Your task to perform on an android device: Set the phone to "Do not disturb". Image 0: 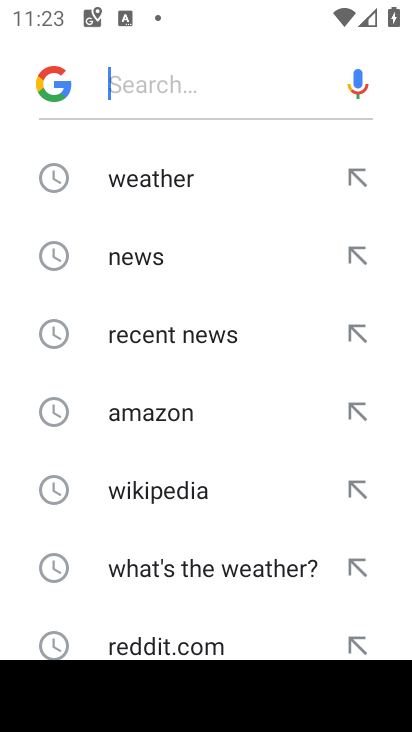
Step 0: press home button
Your task to perform on an android device: Set the phone to "Do not disturb". Image 1: 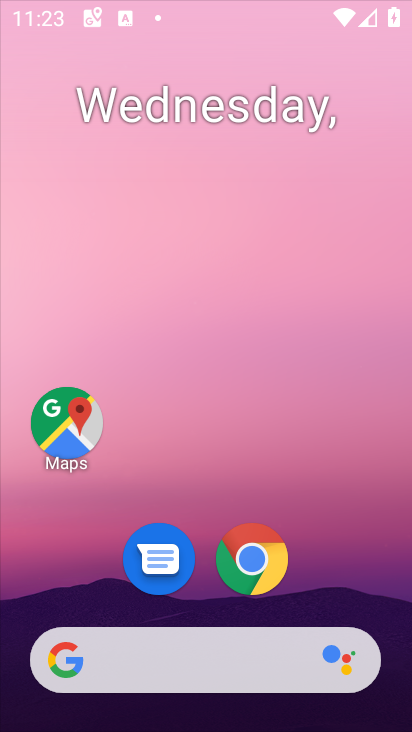
Step 1: drag from (200, 639) to (331, 250)
Your task to perform on an android device: Set the phone to "Do not disturb". Image 2: 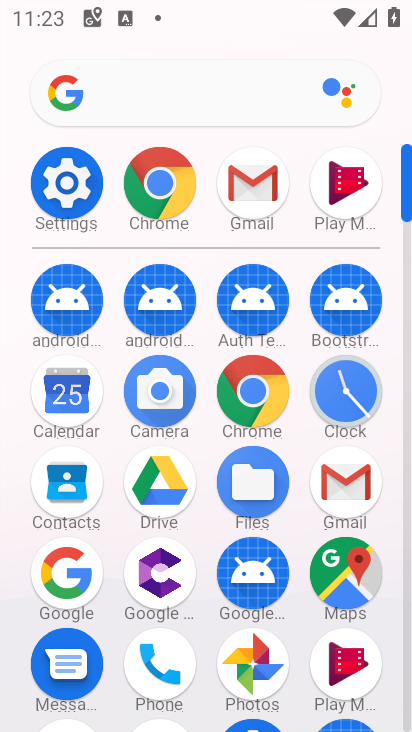
Step 2: drag from (192, 535) to (340, 235)
Your task to perform on an android device: Set the phone to "Do not disturb". Image 3: 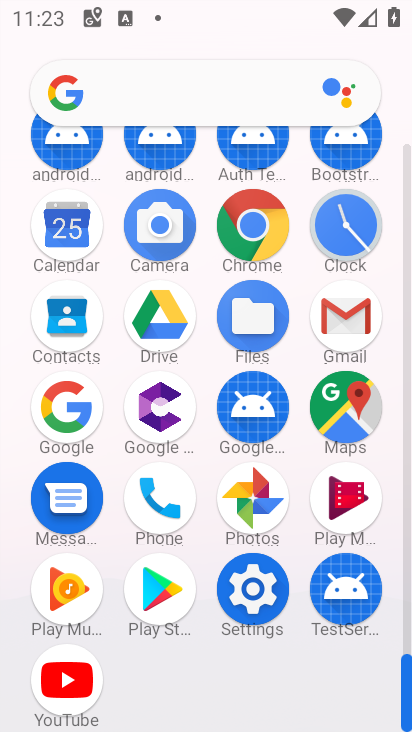
Step 3: drag from (353, 15) to (326, 512)
Your task to perform on an android device: Set the phone to "Do not disturb". Image 4: 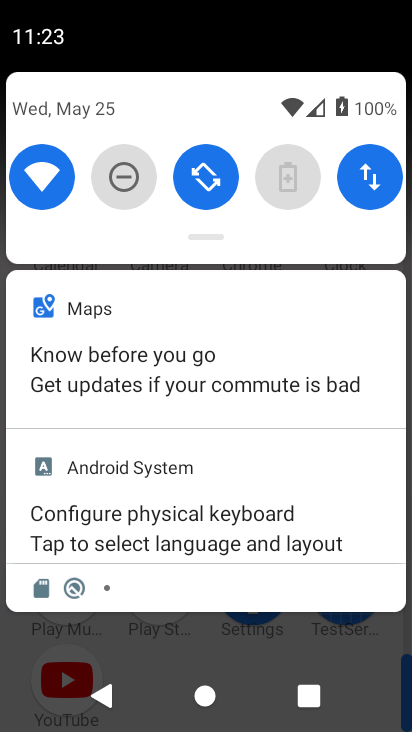
Step 4: drag from (239, 234) to (218, 583)
Your task to perform on an android device: Set the phone to "Do not disturb". Image 5: 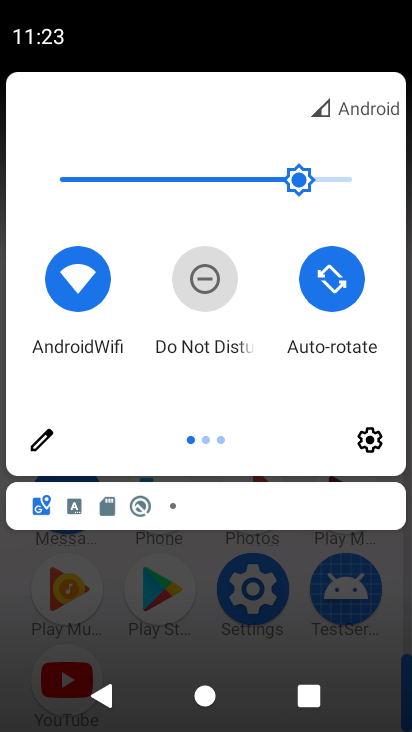
Step 5: click (197, 276)
Your task to perform on an android device: Set the phone to "Do not disturb". Image 6: 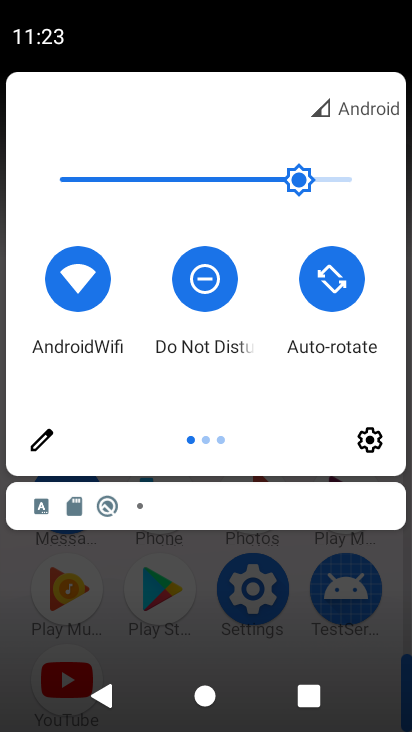
Step 6: task complete